Your task to perform on an android device: install app "Flipkart Online Shopping App" Image 0: 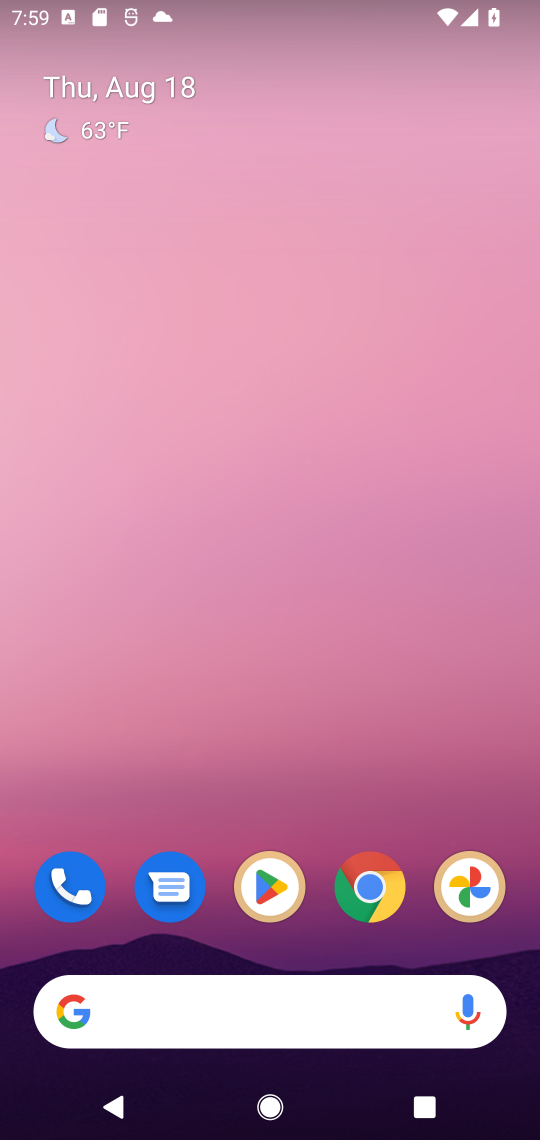
Step 0: click (256, 883)
Your task to perform on an android device: install app "Flipkart Online Shopping App" Image 1: 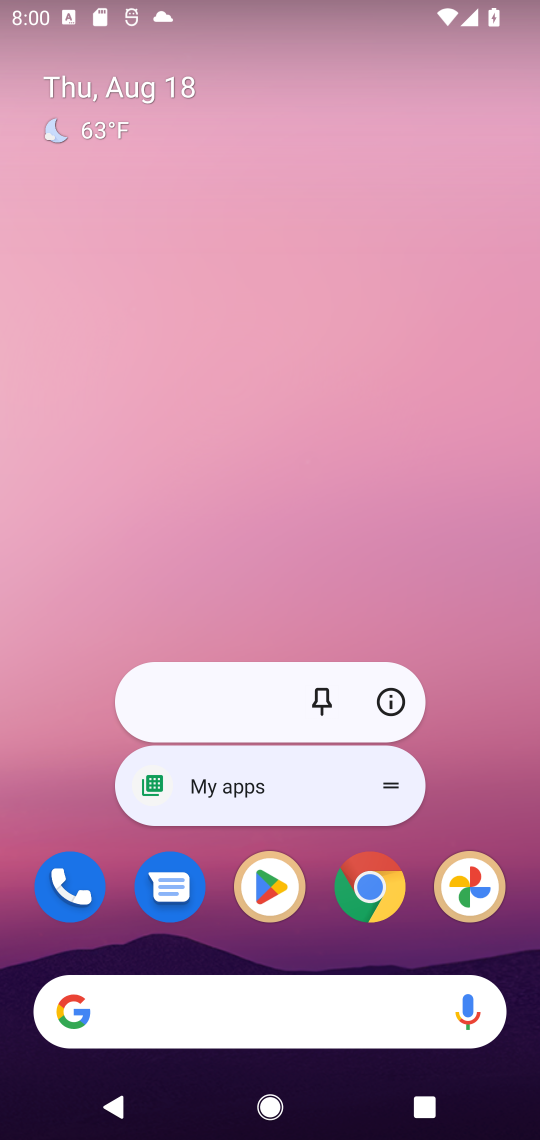
Step 1: click (264, 883)
Your task to perform on an android device: install app "Flipkart Online Shopping App" Image 2: 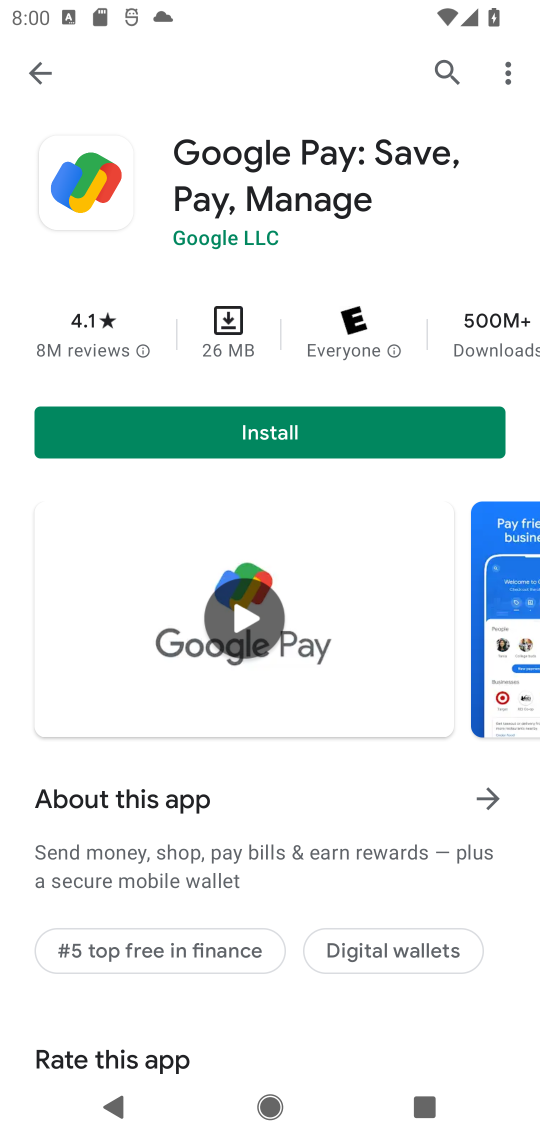
Step 2: click (438, 69)
Your task to perform on an android device: install app "Flipkart Online Shopping App" Image 3: 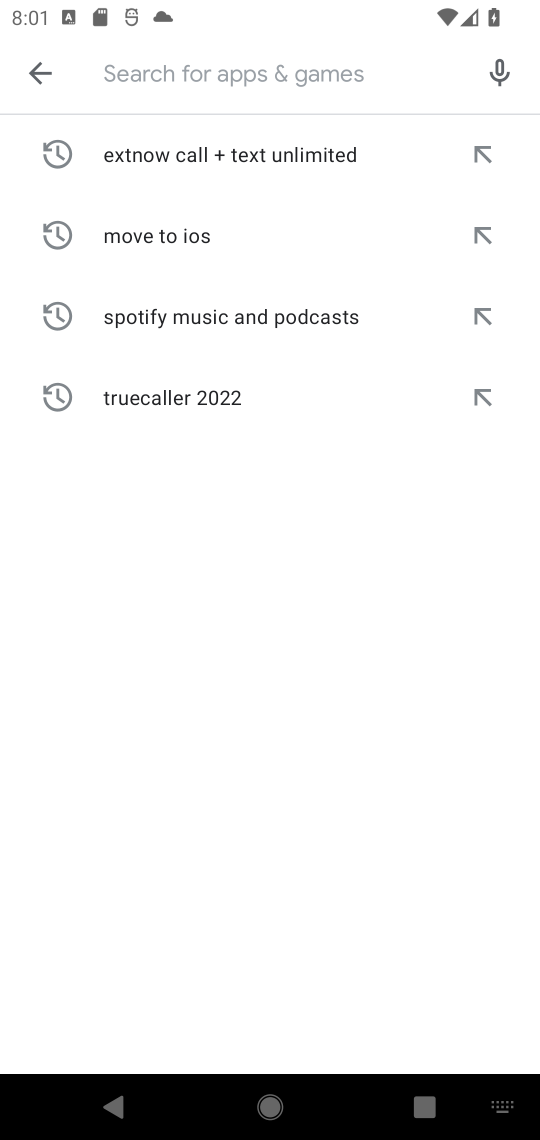
Step 3: type "Flipkart Online Shopping App"
Your task to perform on an android device: install app "Flipkart Online Shopping App" Image 4: 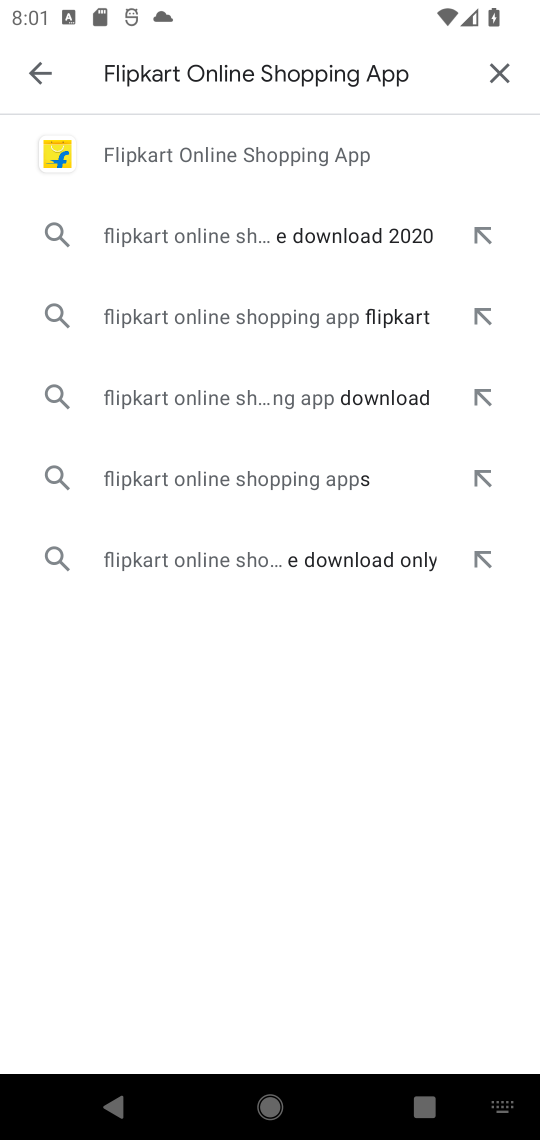
Step 4: click (223, 154)
Your task to perform on an android device: install app "Flipkart Online Shopping App" Image 5: 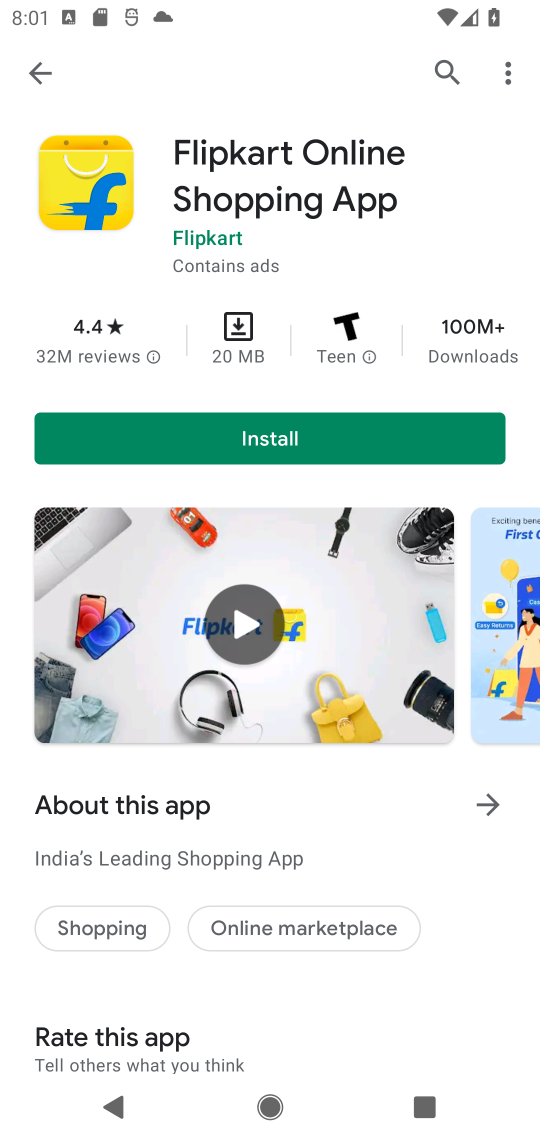
Step 5: click (267, 436)
Your task to perform on an android device: install app "Flipkart Online Shopping App" Image 6: 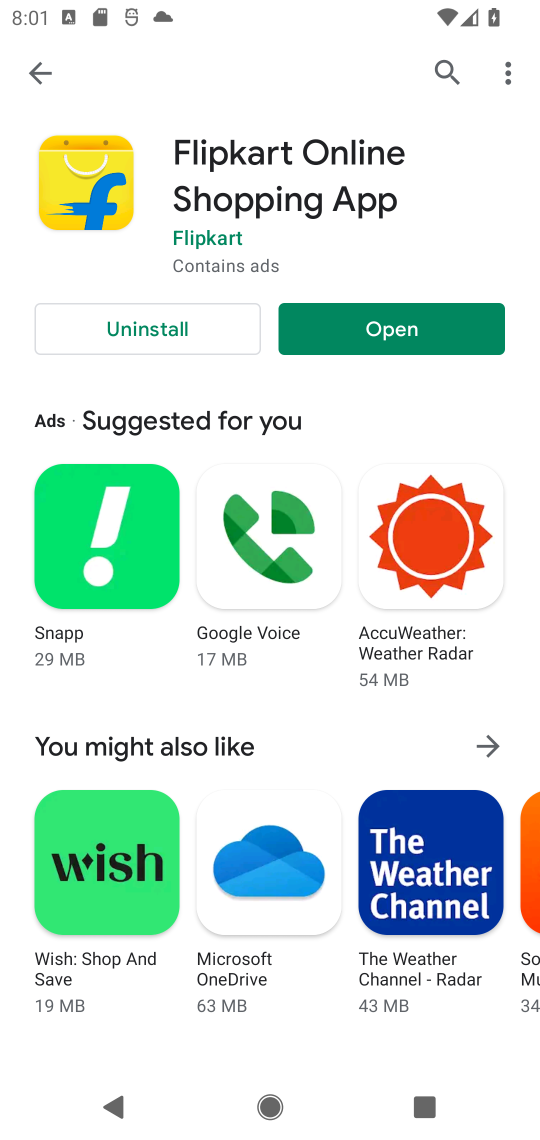
Step 6: task complete